Your task to perform on an android device: open app "Reddit" (install if not already installed) Image 0: 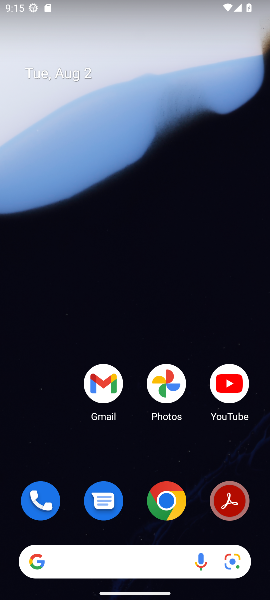
Step 0: drag from (128, 535) to (128, 114)
Your task to perform on an android device: open app "Reddit" (install if not already installed) Image 1: 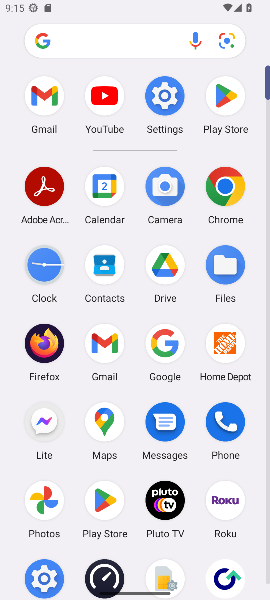
Step 1: click (228, 87)
Your task to perform on an android device: open app "Reddit" (install if not already installed) Image 2: 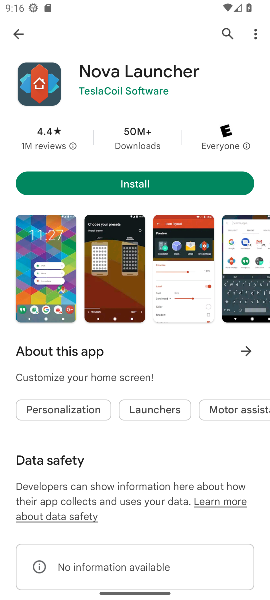
Step 2: drag from (147, 433) to (135, 537)
Your task to perform on an android device: open app "Reddit" (install if not already installed) Image 3: 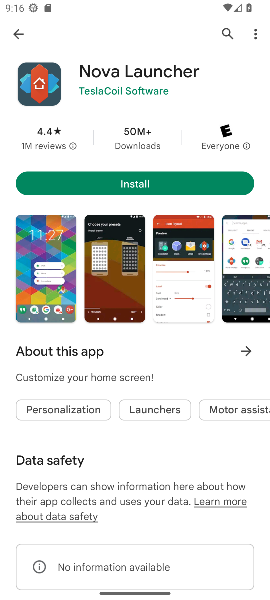
Step 3: drag from (182, 109) to (218, 455)
Your task to perform on an android device: open app "Reddit" (install if not already installed) Image 4: 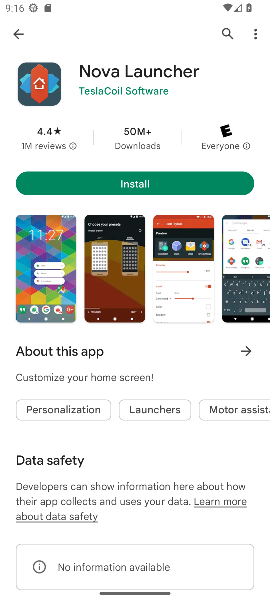
Step 4: click (225, 33)
Your task to perform on an android device: open app "Reddit" (install if not already installed) Image 5: 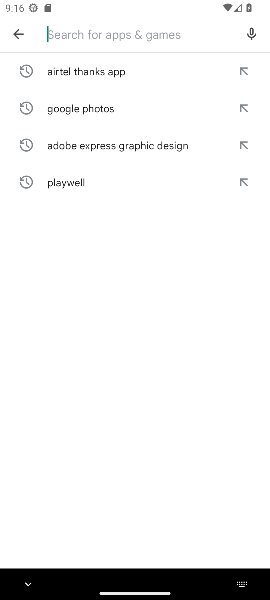
Step 5: click (91, 44)
Your task to perform on an android device: open app "Reddit" (install if not already installed) Image 6: 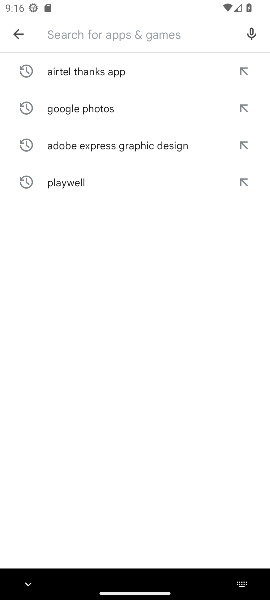
Step 6: type "Reddit"
Your task to perform on an android device: open app "Reddit" (install if not already installed) Image 7: 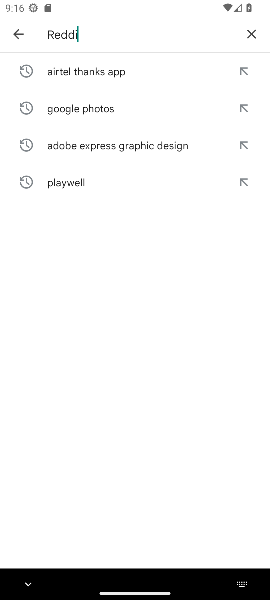
Step 7: type ""
Your task to perform on an android device: open app "Reddit" (install if not already installed) Image 8: 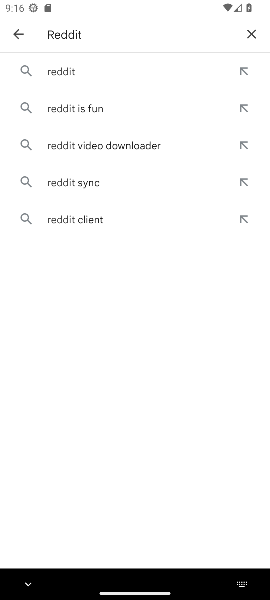
Step 8: click (62, 71)
Your task to perform on an android device: open app "Reddit" (install if not already installed) Image 9: 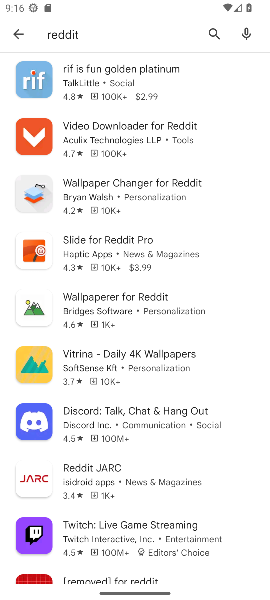
Step 9: task complete